Your task to perform on an android device: Show me recent news Image 0: 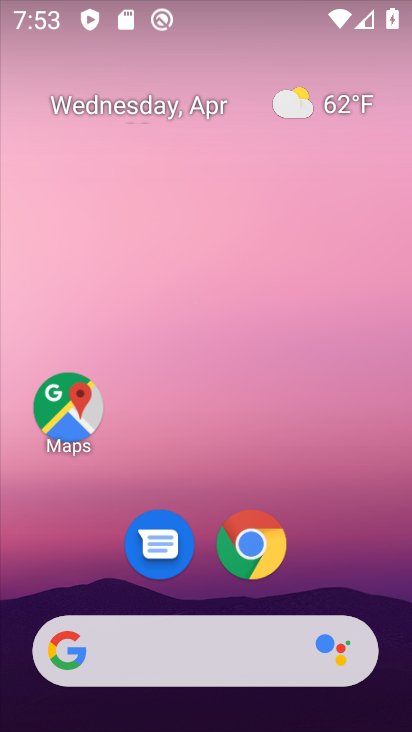
Step 0: click (272, 550)
Your task to perform on an android device: Show me recent news Image 1: 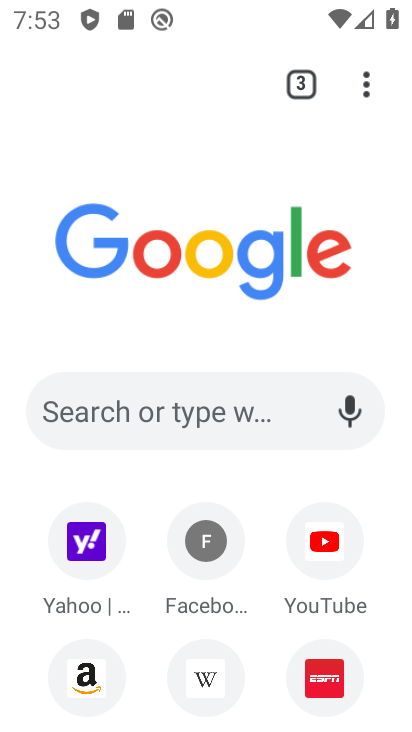
Step 1: click (219, 410)
Your task to perform on an android device: Show me recent news Image 2: 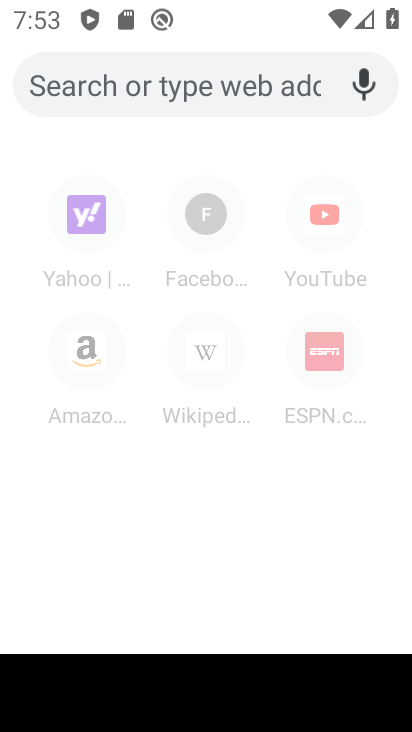
Step 2: type "recent news"
Your task to perform on an android device: Show me recent news Image 3: 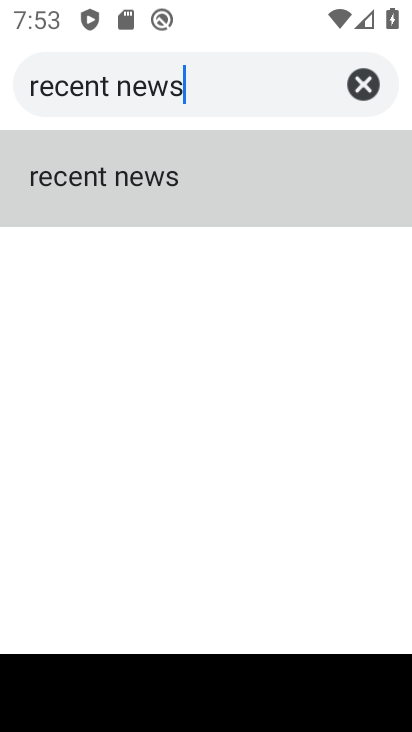
Step 3: click (94, 181)
Your task to perform on an android device: Show me recent news Image 4: 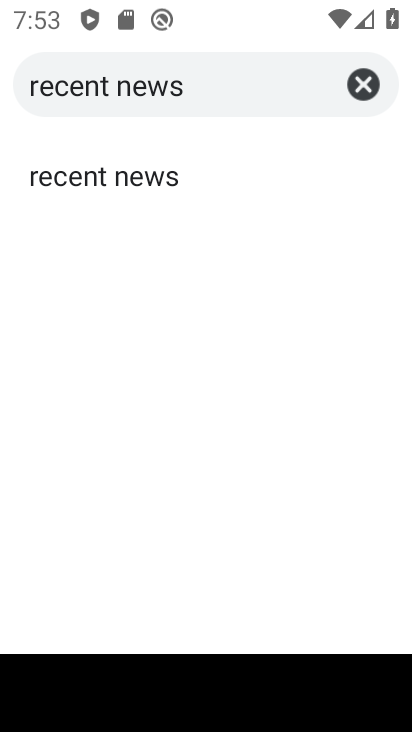
Step 4: click (176, 174)
Your task to perform on an android device: Show me recent news Image 5: 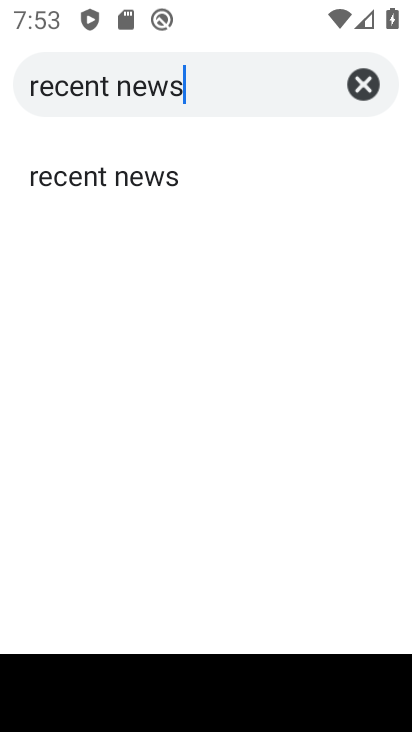
Step 5: click (151, 177)
Your task to perform on an android device: Show me recent news Image 6: 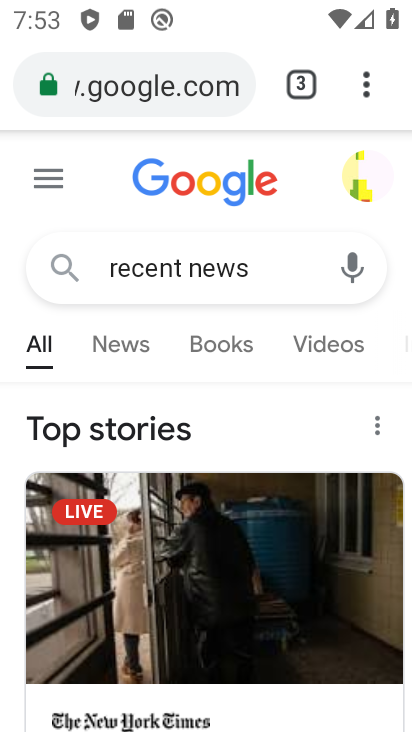
Step 6: click (131, 340)
Your task to perform on an android device: Show me recent news Image 7: 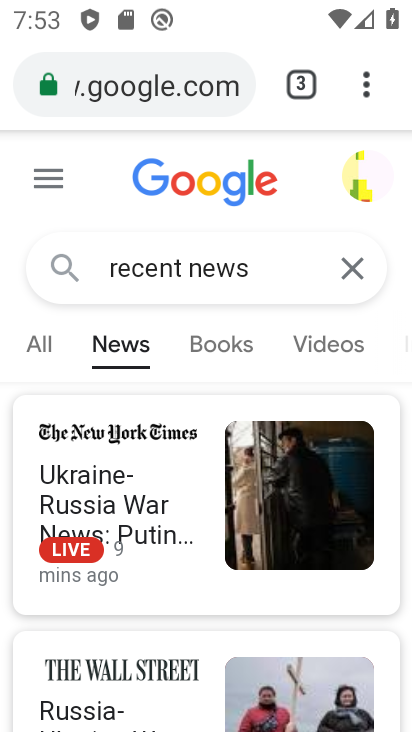
Step 7: task complete